Your task to perform on an android device: Go to display settings Image 0: 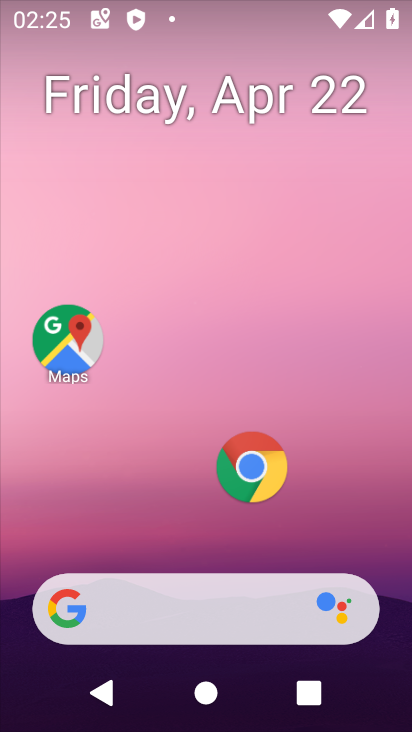
Step 0: drag from (147, 534) to (121, 169)
Your task to perform on an android device: Go to display settings Image 1: 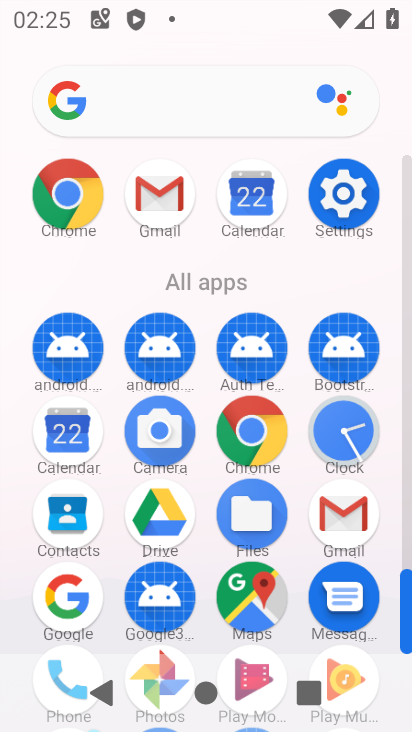
Step 1: click (348, 195)
Your task to perform on an android device: Go to display settings Image 2: 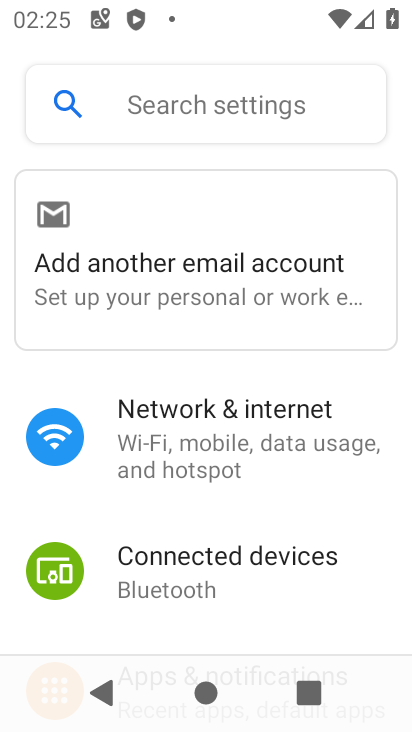
Step 2: drag from (217, 592) to (182, 268)
Your task to perform on an android device: Go to display settings Image 3: 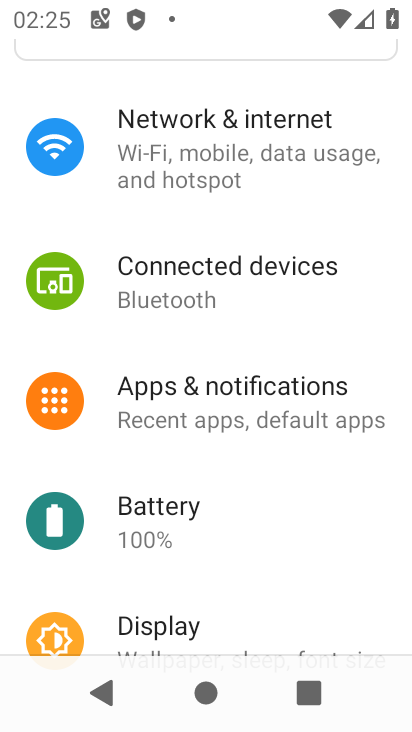
Step 3: drag from (249, 558) to (221, 188)
Your task to perform on an android device: Go to display settings Image 4: 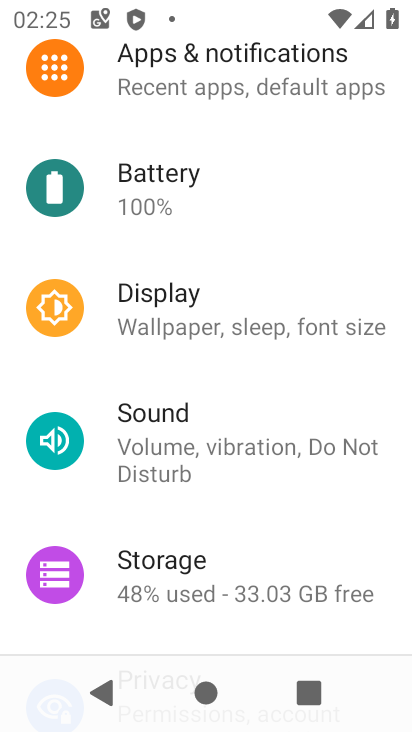
Step 4: click (186, 322)
Your task to perform on an android device: Go to display settings Image 5: 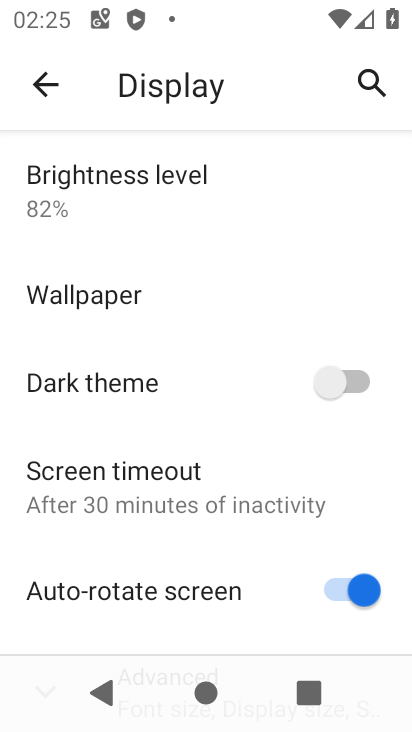
Step 5: task complete